Your task to perform on an android device: turn off location Image 0: 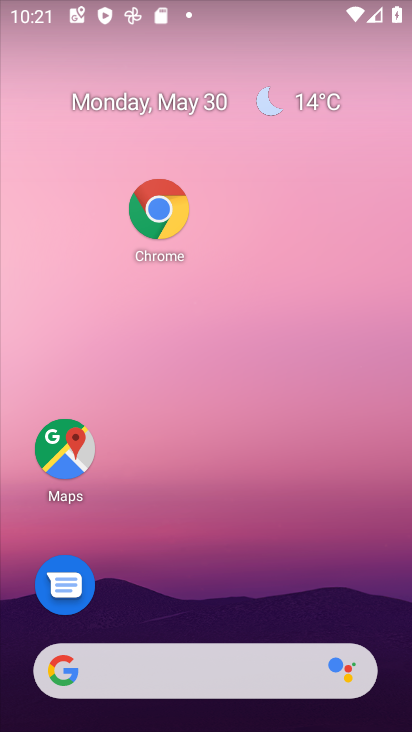
Step 0: drag from (235, 546) to (315, 89)
Your task to perform on an android device: turn off location Image 1: 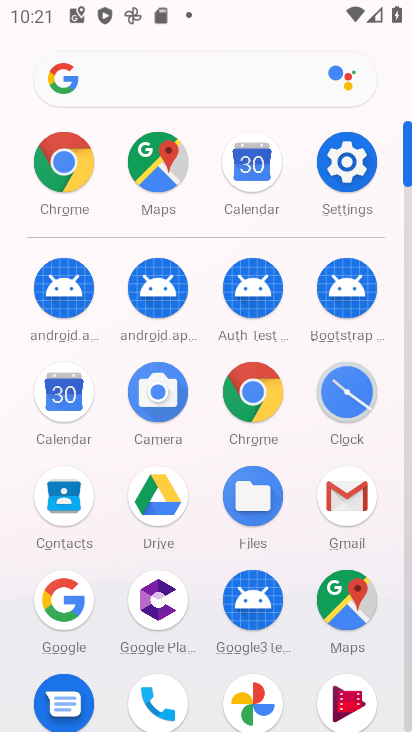
Step 1: click (333, 147)
Your task to perform on an android device: turn off location Image 2: 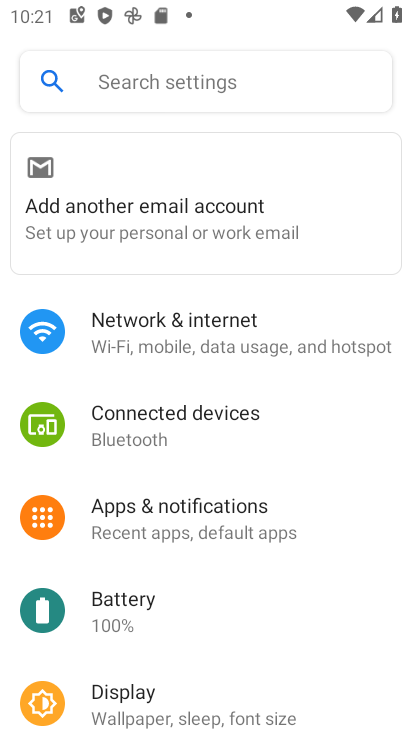
Step 2: drag from (227, 555) to (310, 122)
Your task to perform on an android device: turn off location Image 3: 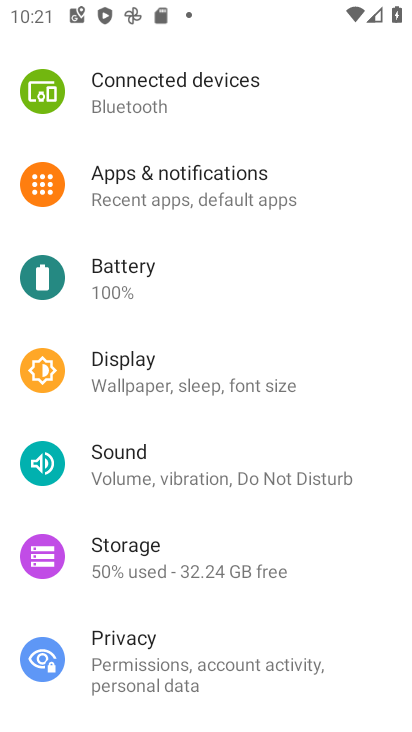
Step 3: drag from (251, 610) to (250, 130)
Your task to perform on an android device: turn off location Image 4: 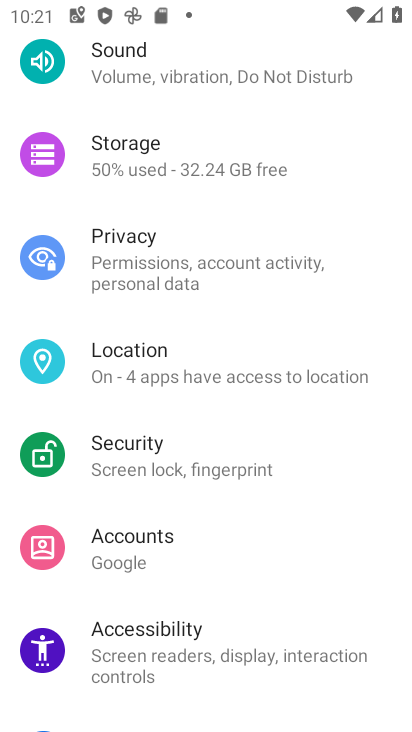
Step 4: click (139, 355)
Your task to perform on an android device: turn off location Image 5: 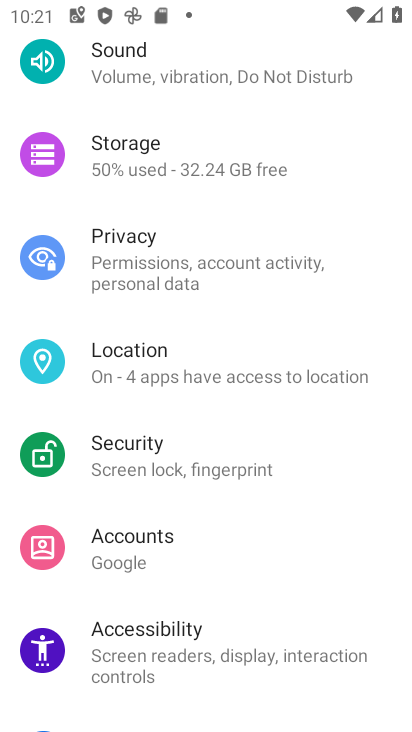
Step 5: click (139, 355)
Your task to perform on an android device: turn off location Image 6: 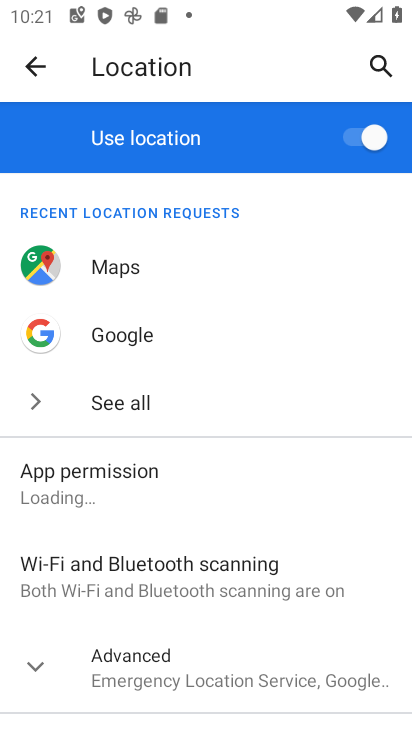
Step 6: click (372, 152)
Your task to perform on an android device: turn off location Image 7: 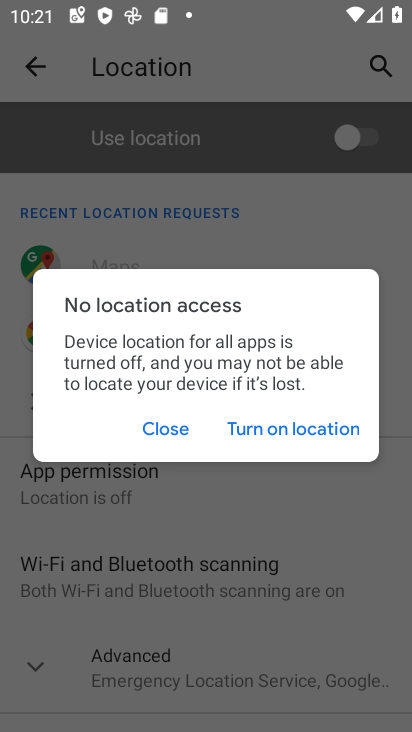
Step 7: click (144, 438)
Your task to perform on an android device: turn off location Image 8: 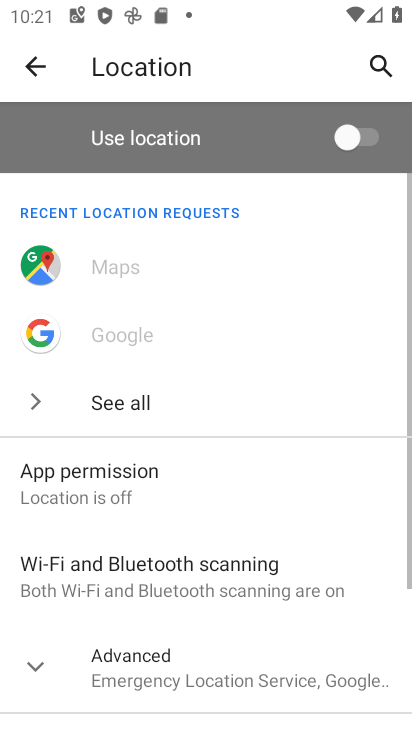
Step 8: task complete